Your task to perform on an android device: turn on translation in the chrome app Image 0: 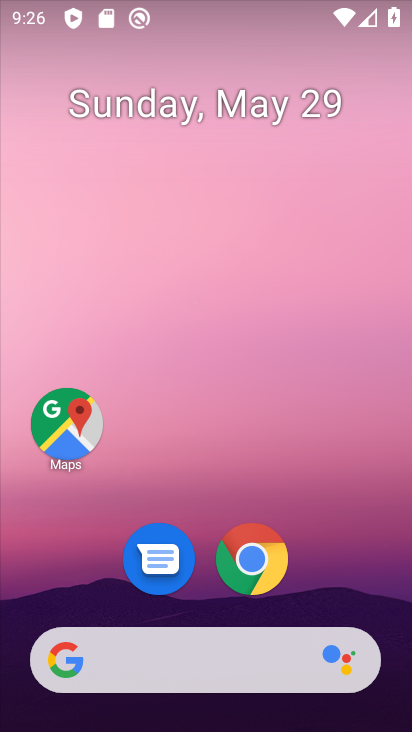
Step 0: click (265, 569)
Your task to perform on an android device: turn on translation in the chrome app Image 1: 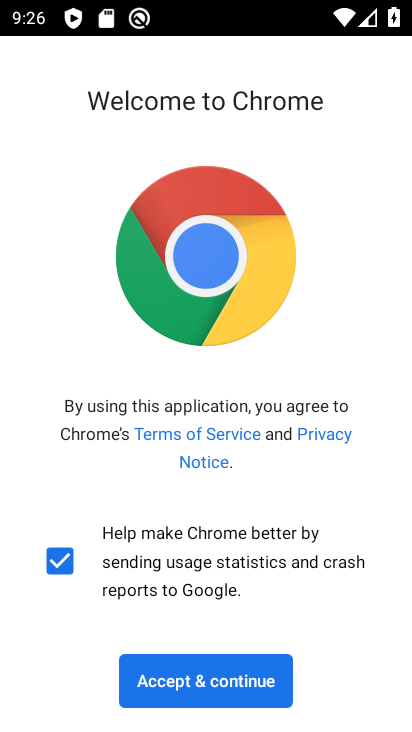
Step 1: click (257, 699)
Your task to perform on an android device: turn on translation in the chrome app Image 2: 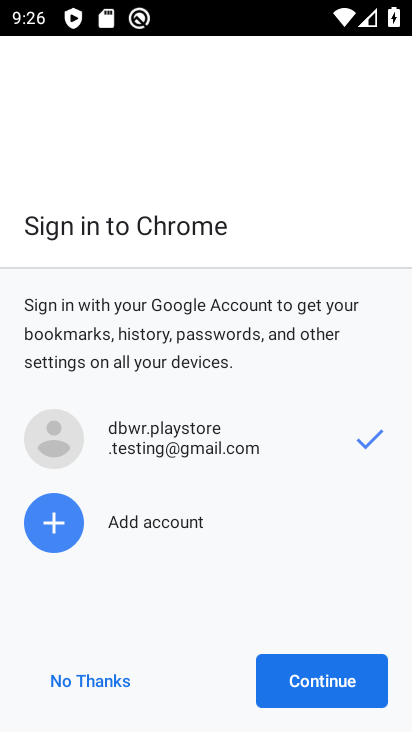
Step 2: click (290, 686)
Your task to perform on an android device: turn on translation in the chrome app Image 3: 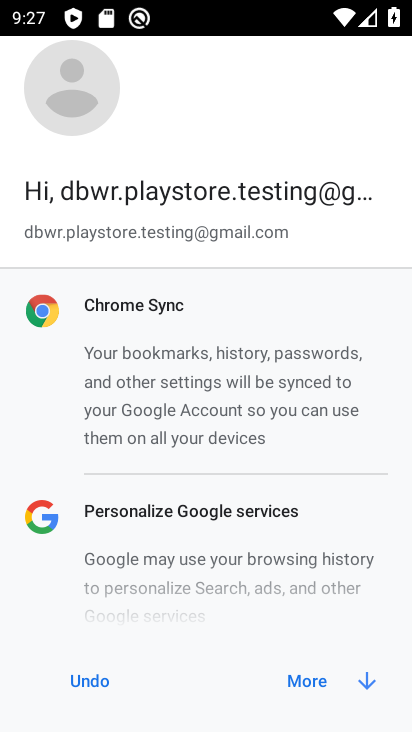
Step 3: click (304, 686)
Your task to perform on an android device: turn on translation in the chrome app Image 4: 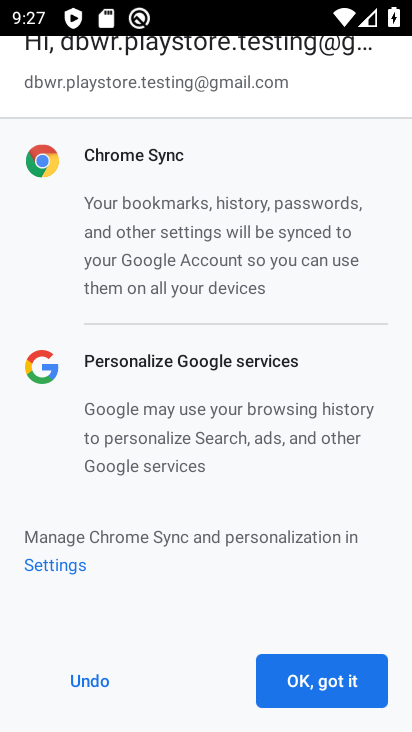
Step 4: click (306, 688)
Your task to perform on an android device: turn on translation in the chrome app Image 5: 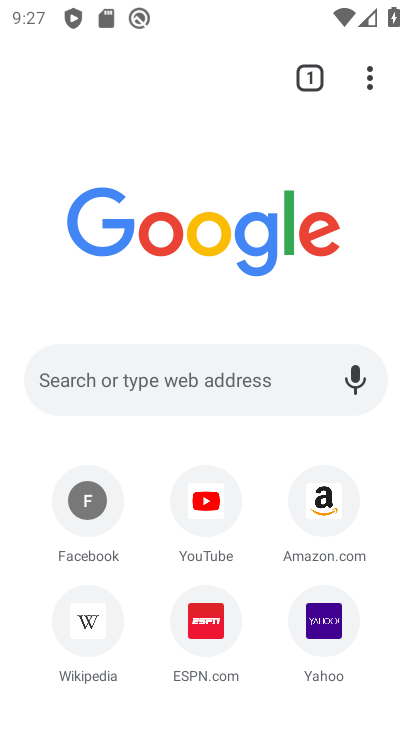
Step 5: drag from (393, 76) to (262, 621)
Your task to perform on an android device: turn on translation in the chrome app Image 6: 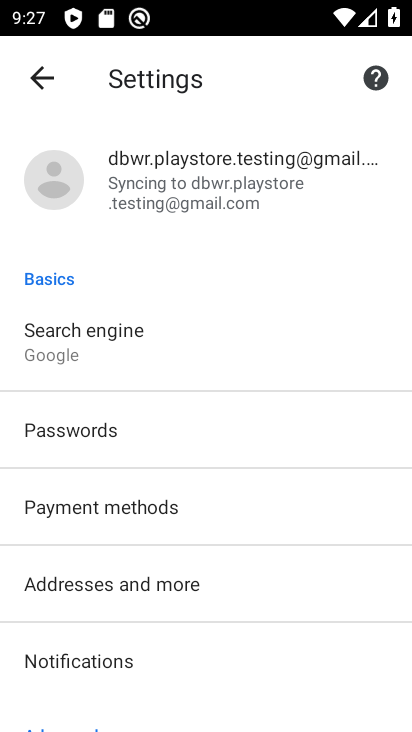
Step 6: drag from (125, 652) to (198, 294)
Your task to perform on an android device: turn on translation in the chrome app Image 7: 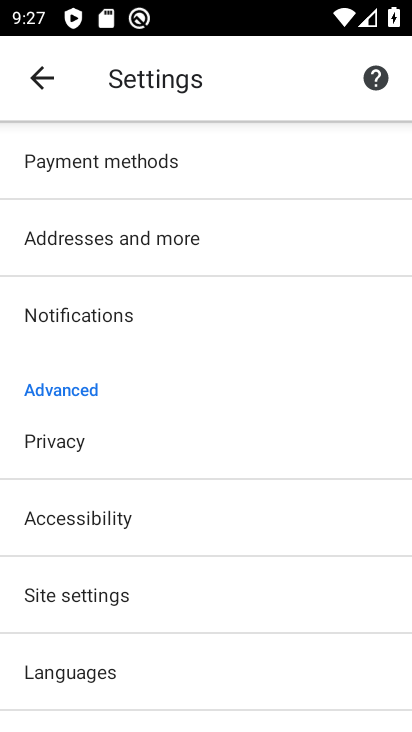
Step 7: drag from (171, 628) to (234, 280)
Your task to perform on an android device: turn on translation in the chrome app Image 8: 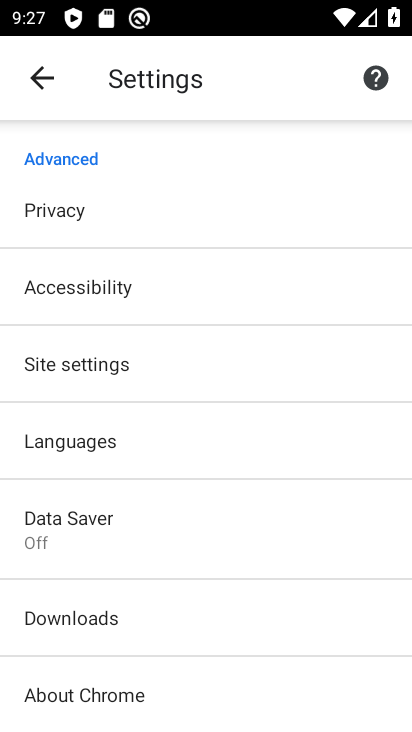
Step 8: click (172, 456)
Your task to perform on an android device: turn on translation in the chrome app Image 9: 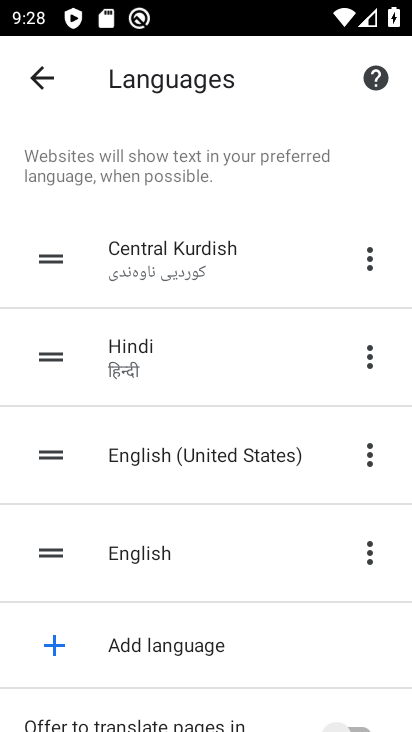
Step 9: drag from (163, 631) to (242, 236)
Your task to perform on an android device: turn on translation in the chrome app Image 10: 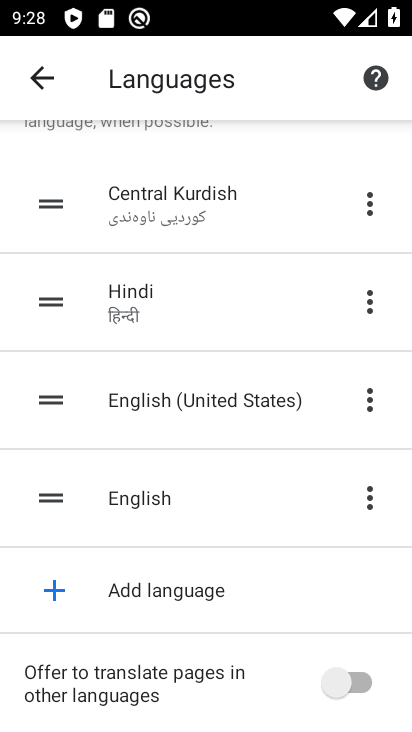
Step 10: click (389, 678)
Your task to perform on an android device: turn on translation in the chrome app Image 11: 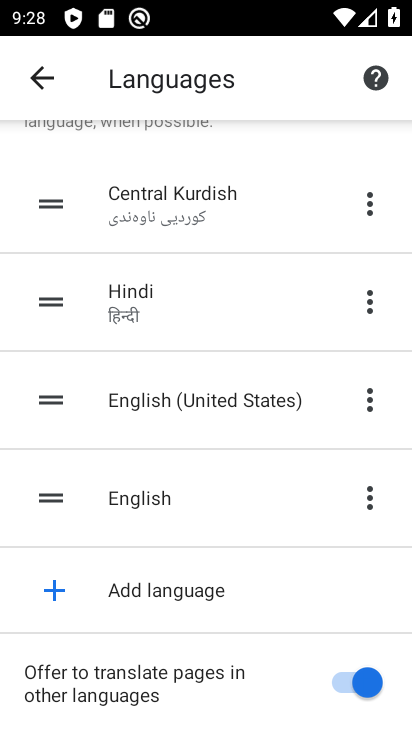
Step 11: task complete